Your task to perform on an android device: see sites visited before in the chrome app Image 0: 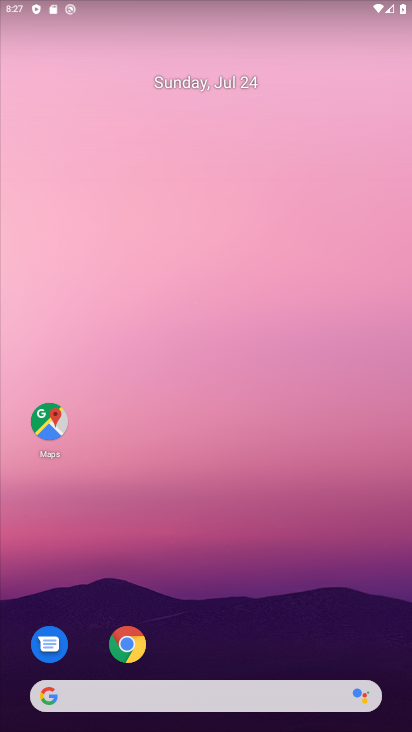
Step 0: click (127, 643)
Your task to perform on an android device: see sites visited before in the chrome app Image 1: 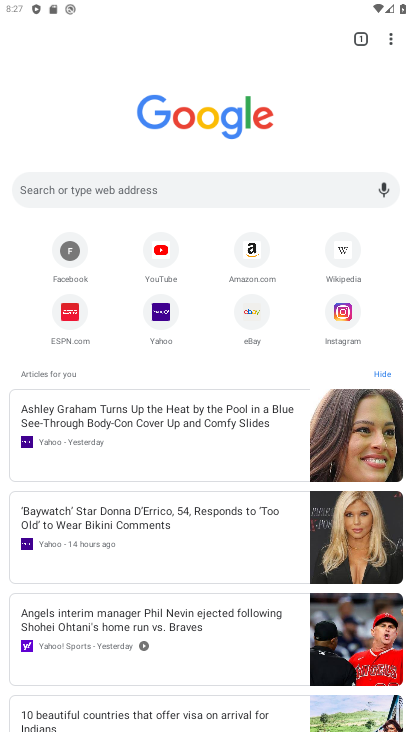
Step 1: click (391, 44)
Your task to perform on an android device: see sites visited before in the chrome app Image 2: 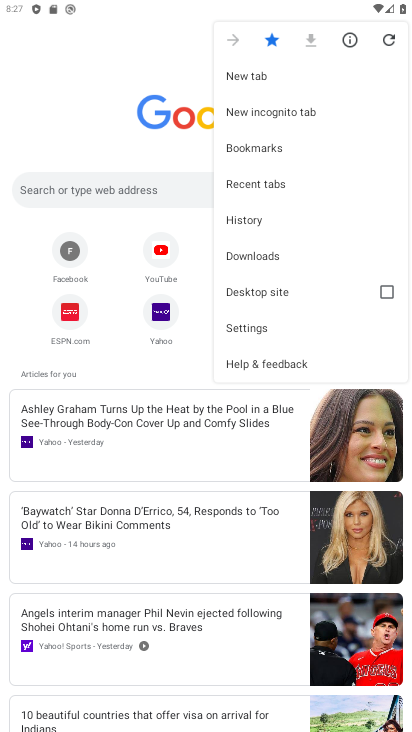
Step 2: click (252, 223)
Your task to perform on an android device: see sites visited before in the chrome app Image 3: 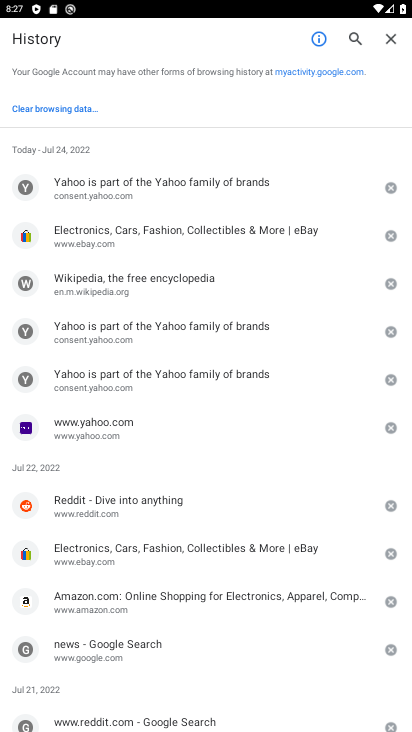
Step 3: task complete